Your task to perform on an android device: Go to Google Image 0: 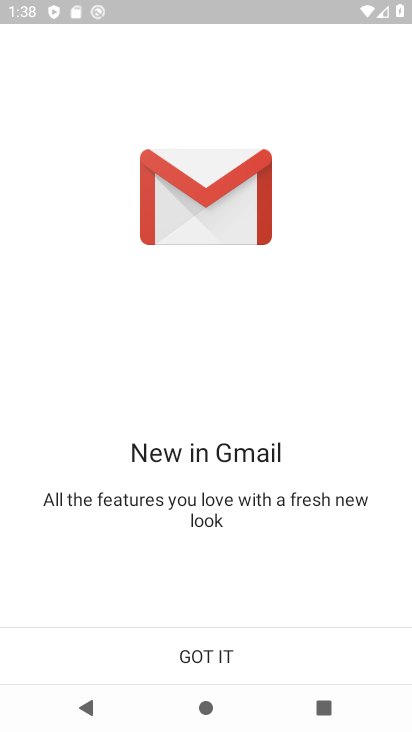
Step 0: click (220, 660)
Your task to perform on an android device: Go to Google Image 1: 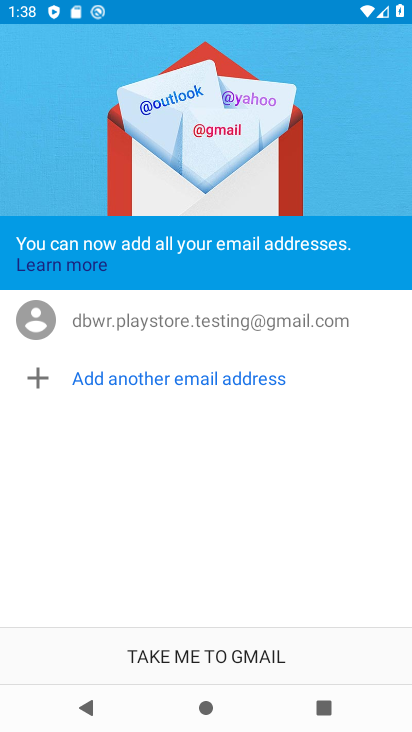
Step 1: press home button
Your task to perform on an android device: Go to Google Image 2: 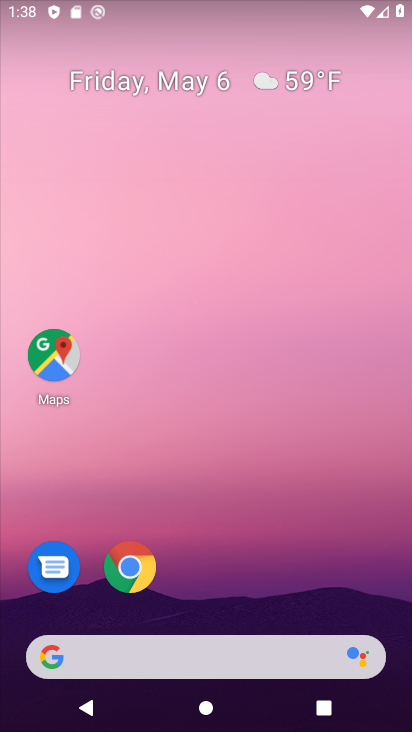
Step 2: drag from (220, 568) to (240, 5)
Your task to perform on an android device: Go to Google Image 3: 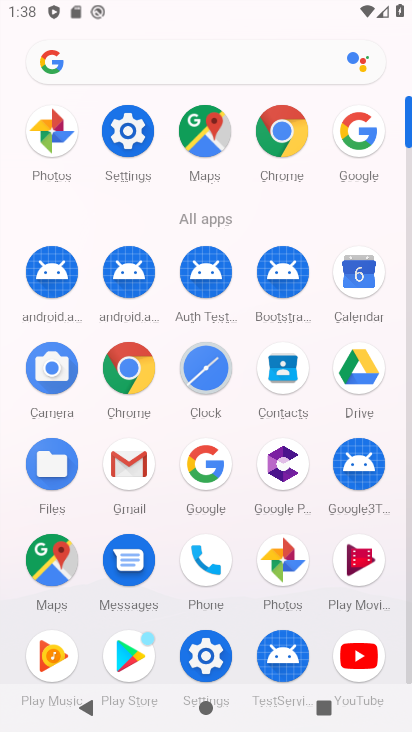
Step 3: click (204, 462)
Your task to perform on an android device: Go to Google Image 4: 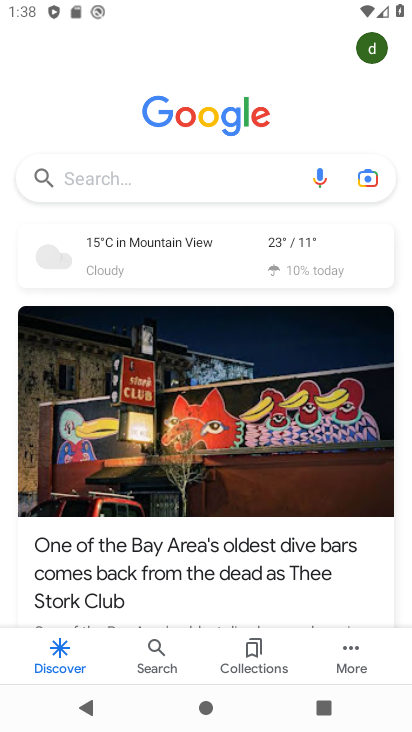
Step 4: task complete